Your task to perform on an android device: open chrome privacy settings Image 0: 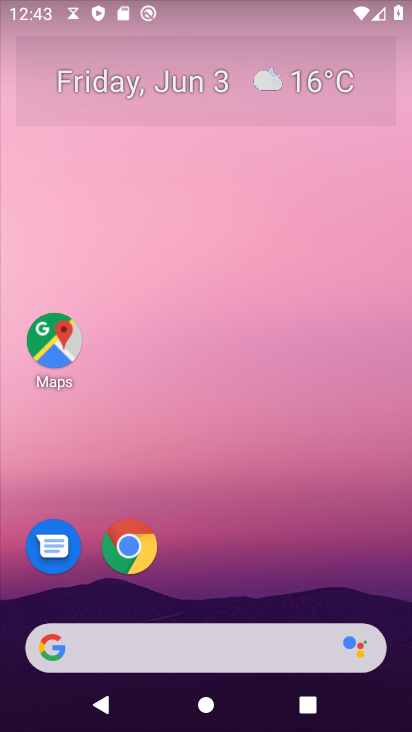
Step 0: click (224, 204)
Your task to perform on an android device: open chrome privacy settings Image 1: 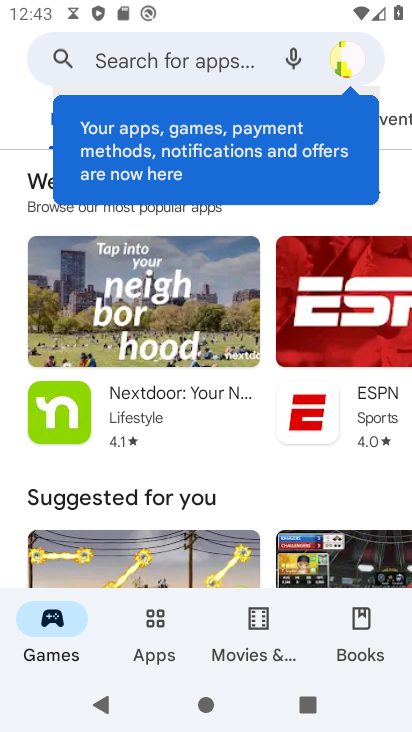
Step 1: press back button
Your task to perform on an android device: open chrome privacy settings Image 2: 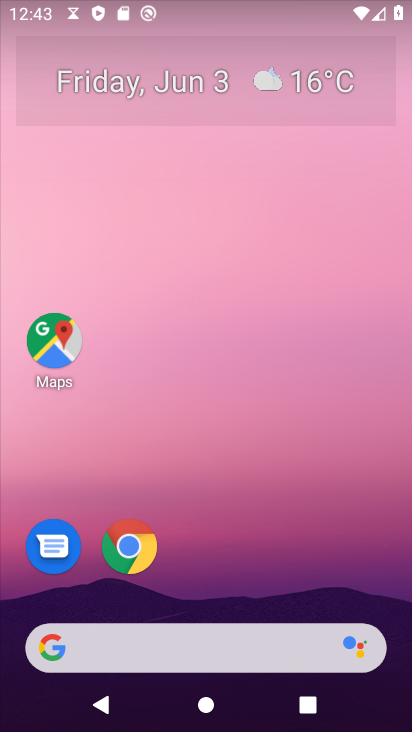
Step 2: click (132, 537)
Your task to perform on an android device: open chrome privacy settings Image 3: 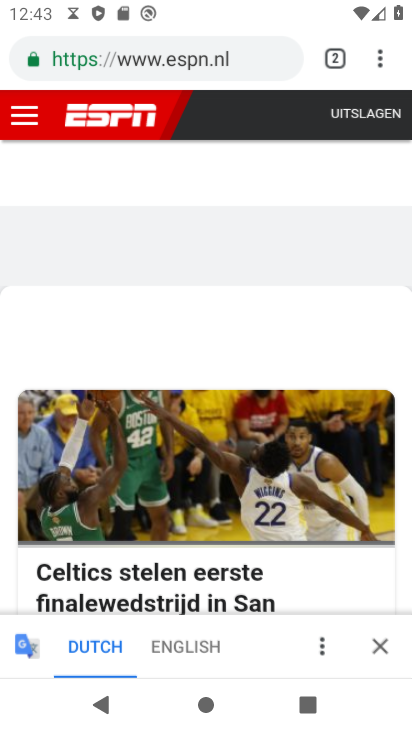
Step 3: drag from (375, 51) to (196, 579)
Your task to perform on an android device: open chrome privacy settings Image 4: 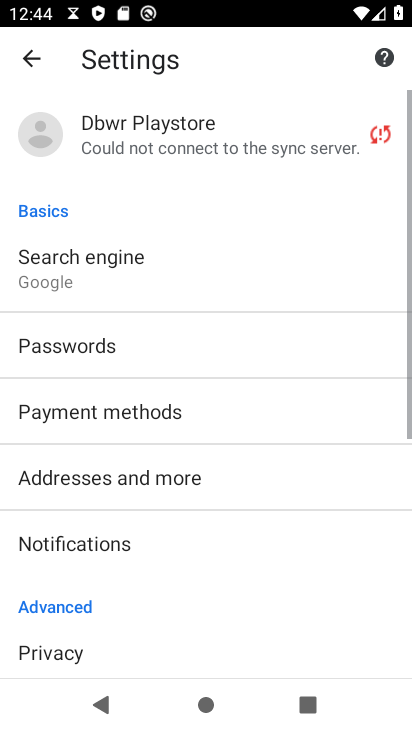
Step 4: drag from (178, 564) to (242, 207)
Your task to perform on an android device: open chrome privacy settings Image 5: 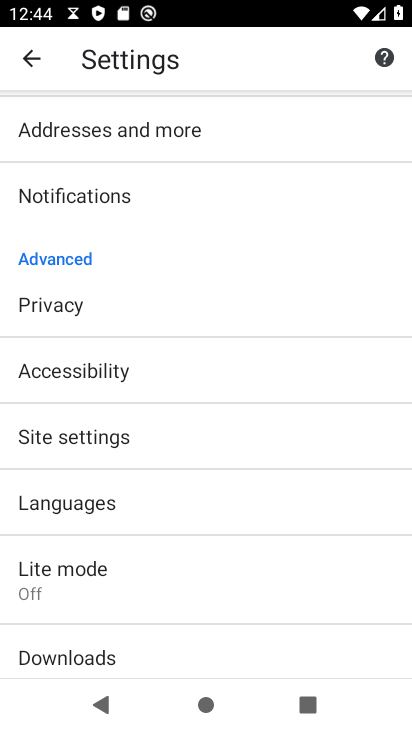
Step 5: click (43, 296)
Your task to perform on an android device: open chrome privacy settings Image 6: 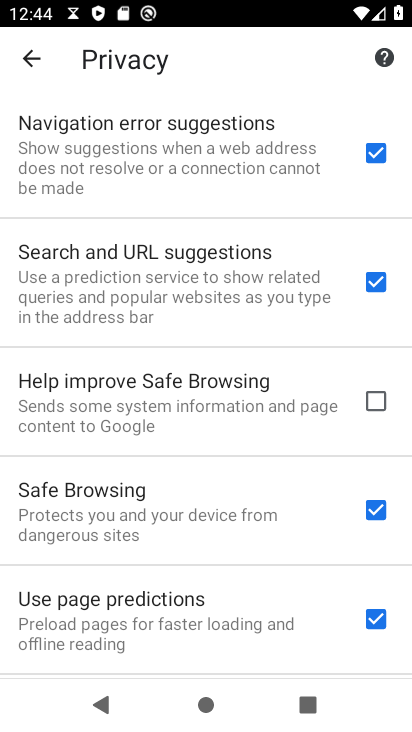
Step 6: task complete